Your task to perform on an android device: Open battery settings Image 0: 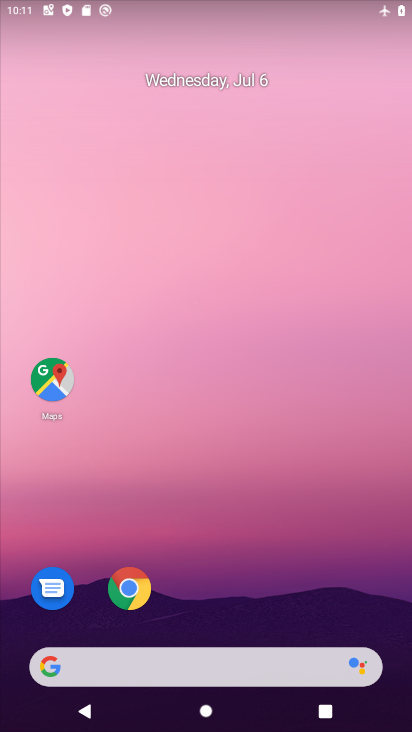
Step 0: drag from (250, 587) to (217, 252)
Your task to perform on an android device: Open battery settings Image 1: 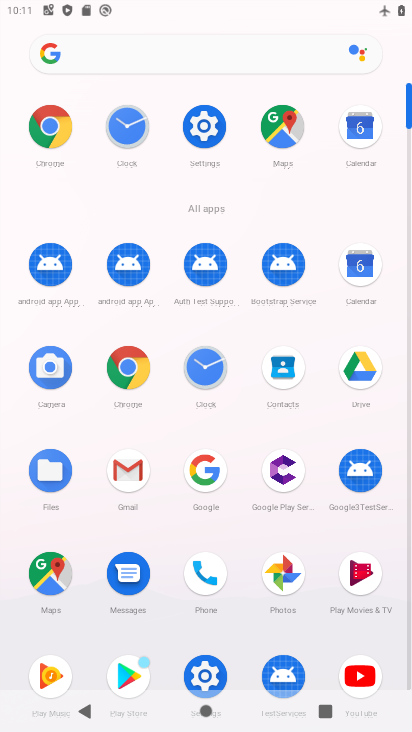
Step 1: click (204, 114)
Your task to perform on an android device: Open battery settings Image 2: 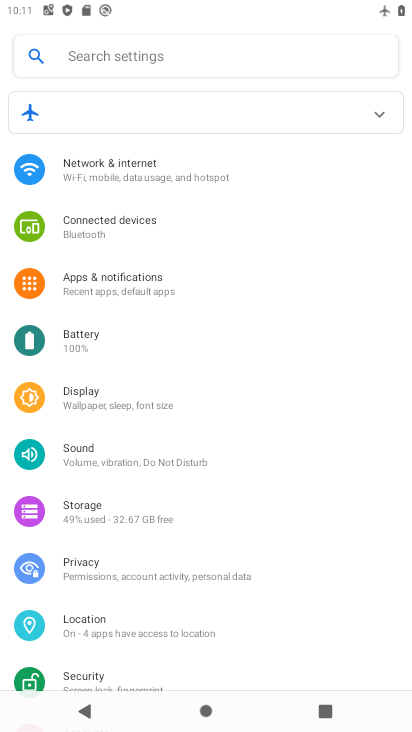
Step 2: click (141, 315)
Your task to perform on an android device: Open battery settings Image 3: 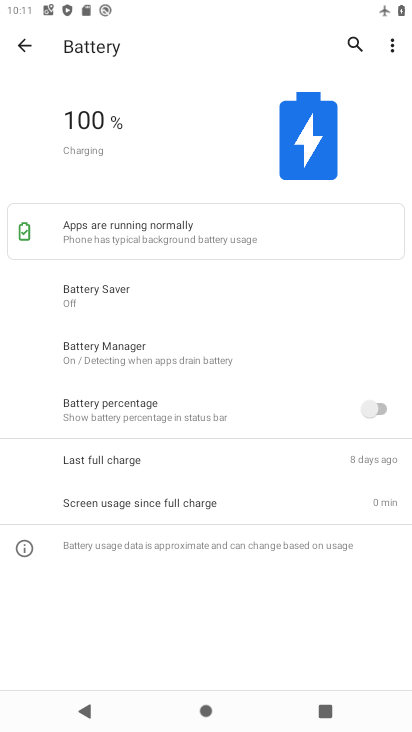
Step 3: task complete